Your task to perform on an android device: toggle translation in the chrome app Image 0: 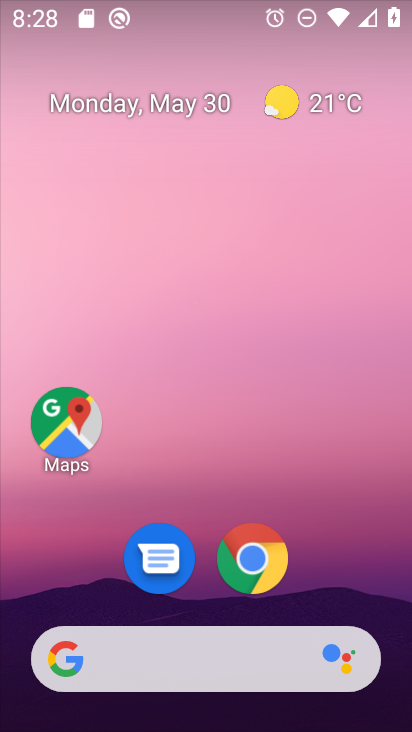
Step 0: click (263, 566)
Your task to perform on an android device: toggle translation in the chrome app Image 1: 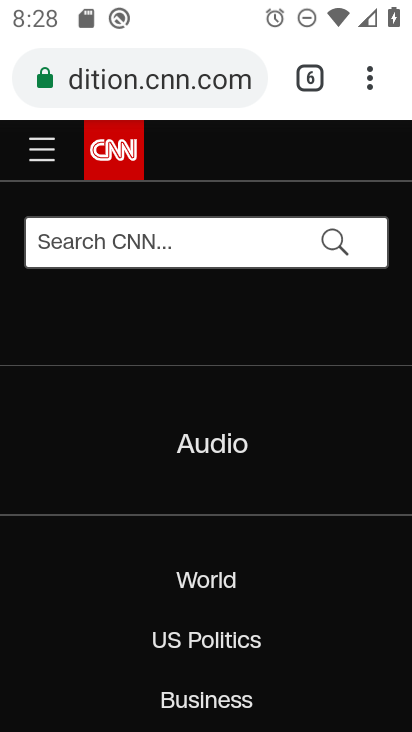
Step 1: click (370, 75)
Your task to perform on an android device: toggle translation in the chrome app Image 2: 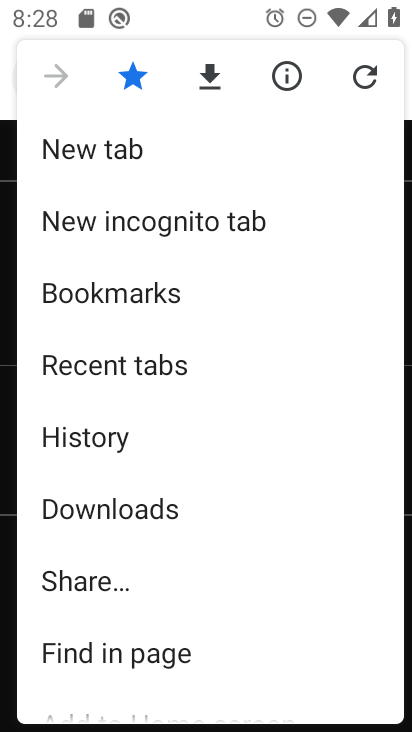
Step 2: drag from (226, 539) to (158, 139)
Your task to perform on an android device: toggle translation in the chrome app Image 3: 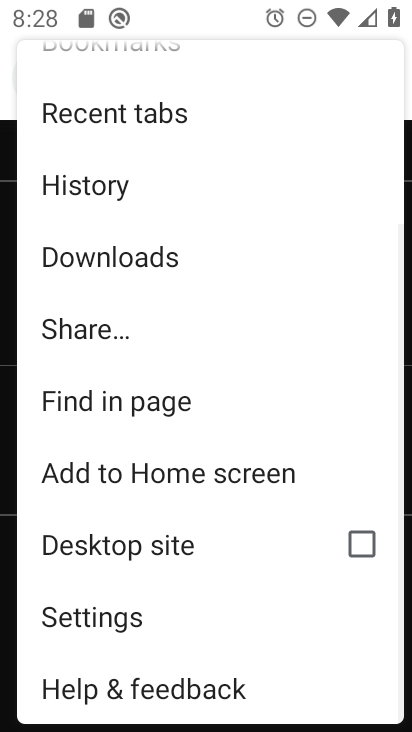
Step 3: click (122, 624)
Your task to perform on an android device: toggle translation in the chrome app Image 4: 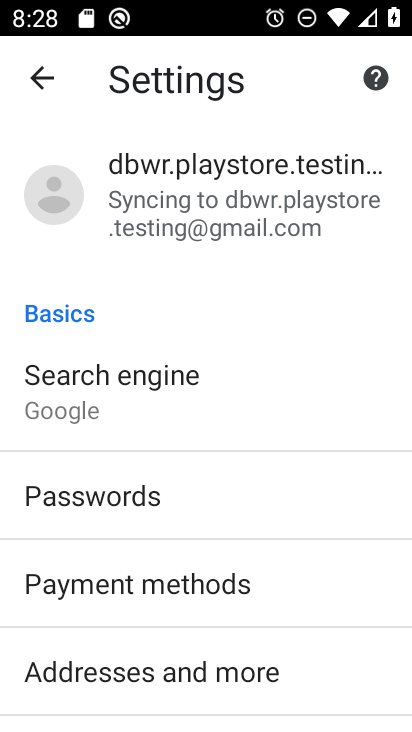
Step 4: drag from (312, 579) to (268, 83)
Your task to perform on an android device: toggle translation in the chrome app Image 5: 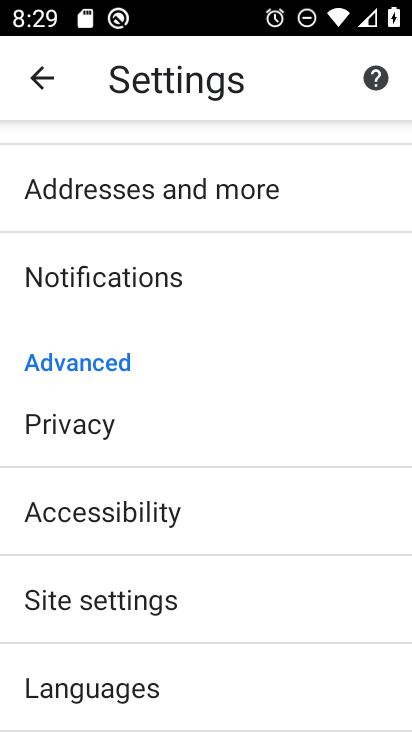
Step 5: drag from (258, 698) to (259, 331)
Your task to perform on an android device: toggle translation in the chrome app Image 6: 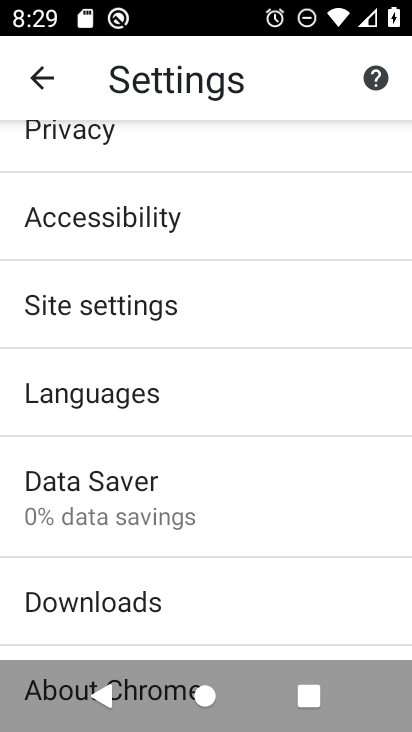
Step 6: click (101, 403)
Your task to perform on an android device: toggle translation in the chrome app Image 7: 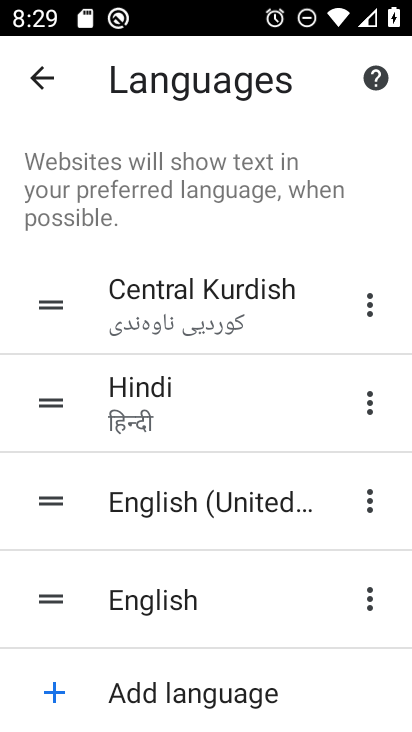
Step 7: drag from (313, 571) to (279, 100)
Your task to perform on an android device: toggle translation in the chrome app Image 8: 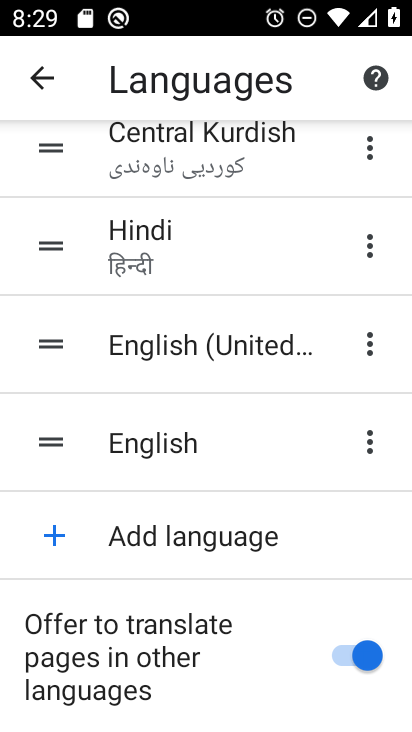
Step 8: click (361, 660)
Your task to perform on an android device: toggle translation in the chrome app Image 9: 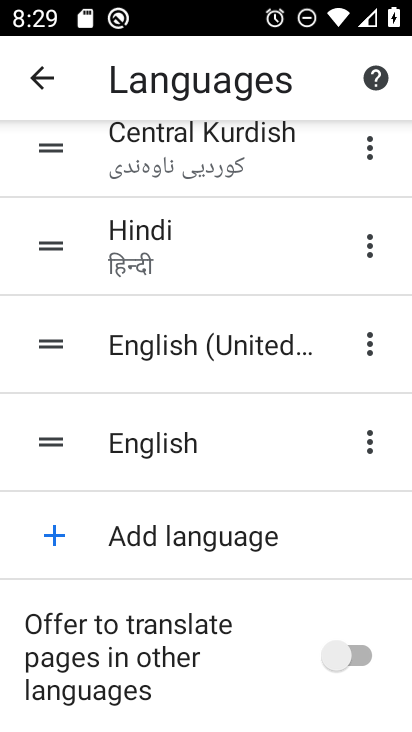
Step 9: task complete